Your task to perform on an android device: Open calendar and show me the third week of next month Image 0: 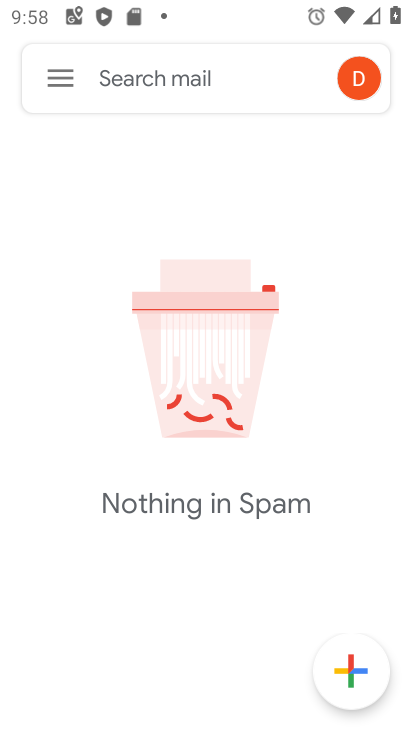
Step 0: press home button
Your task to perform on an android device: Open calendar and show me the third week of next month Image 1: 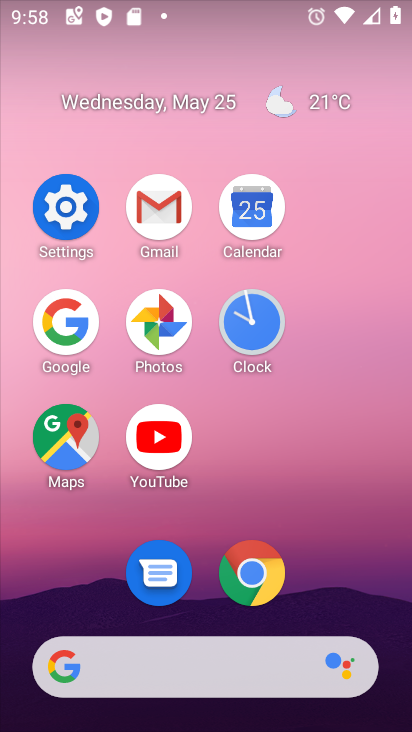
Step 1: click (277, 200)
Your task to perform on an android device: Open calendar and show me the third week of next month Image 2: 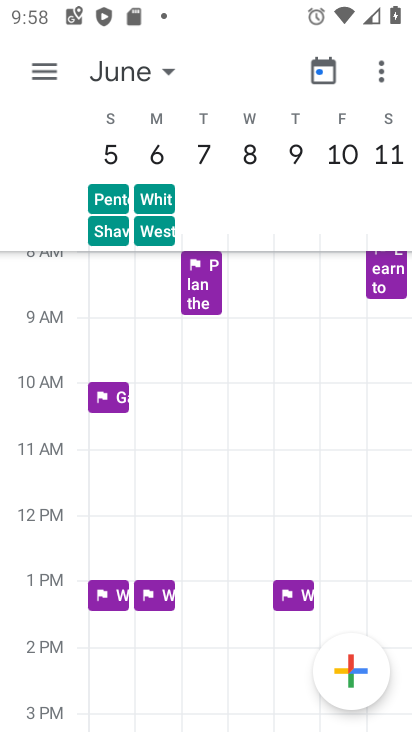
Step 2: task complete